Your task to perform on an android device: turn off sleep mode Image 0: 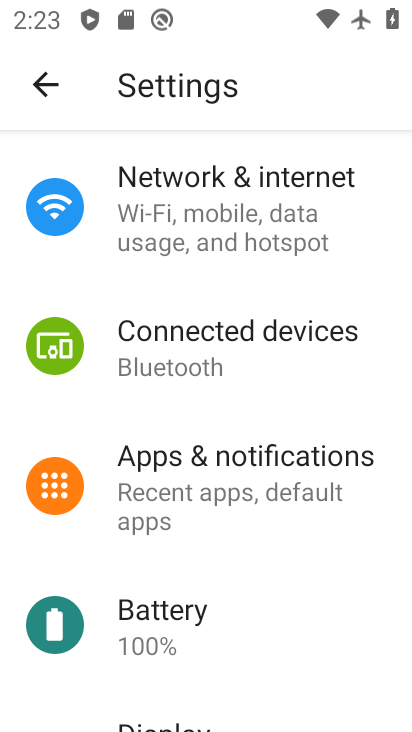
Step 0: press back button
Your task to perform on an android device: turn off sleep mode Image 1: 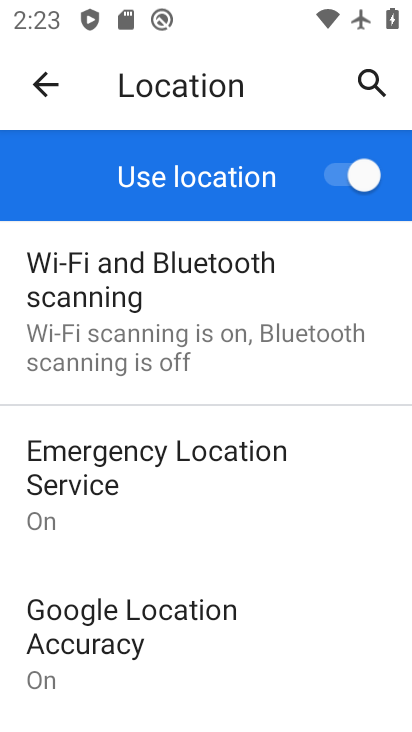
Step 1: click (44, 71)
Your task to perform on an android device: turn off sleep mode Image 2: 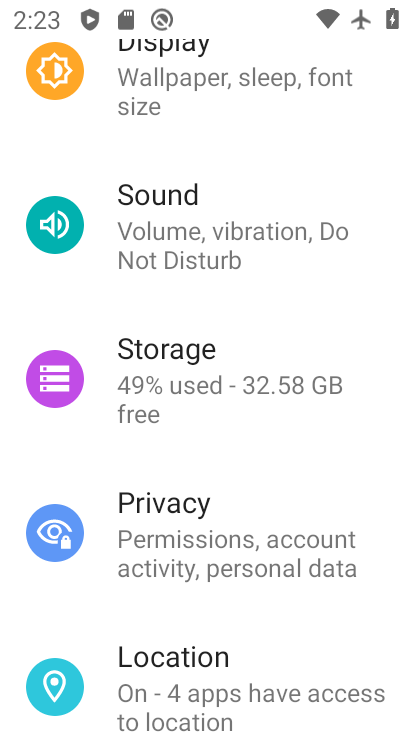
Step 2: drag from (224, 155) to (215, 644)
Your task to perform on an android device: turn off sleep mode Image 3: 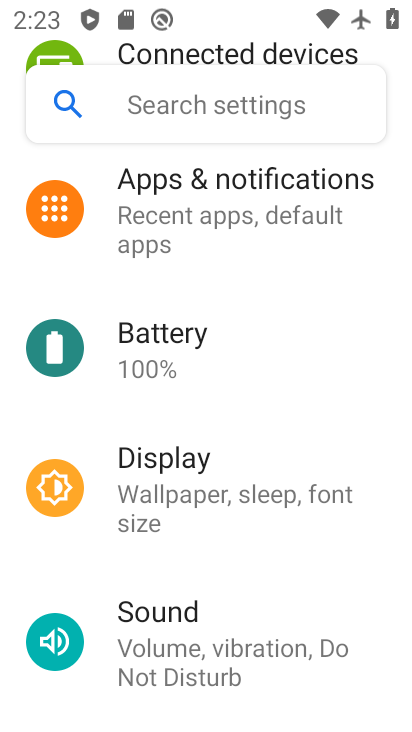
Step 3: click (173, 100)
Your task to perform on an android device: turn off sleep mode Image 4: 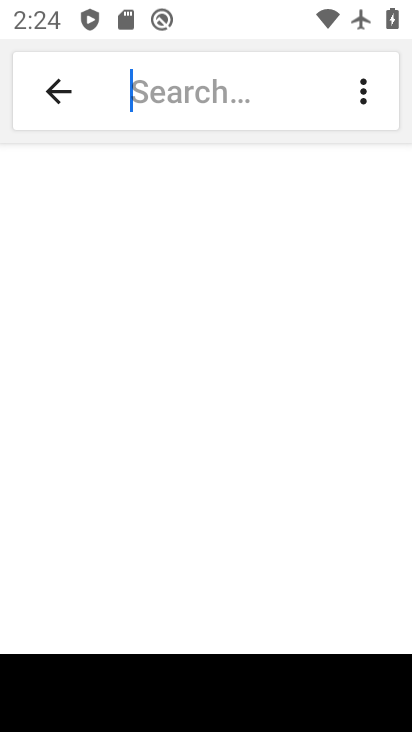
Step 4: type "sleep mode"
Your task to perform on an android device: turn off sleep mode Image 5: 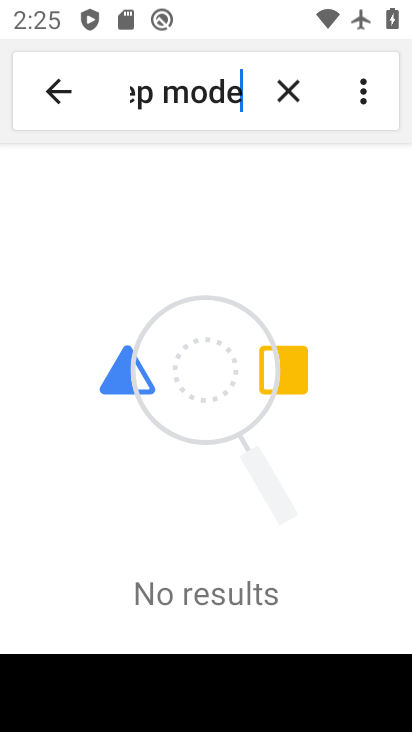
Step 5: task complete